Your task to perform on an android device: turn off location Image 0: 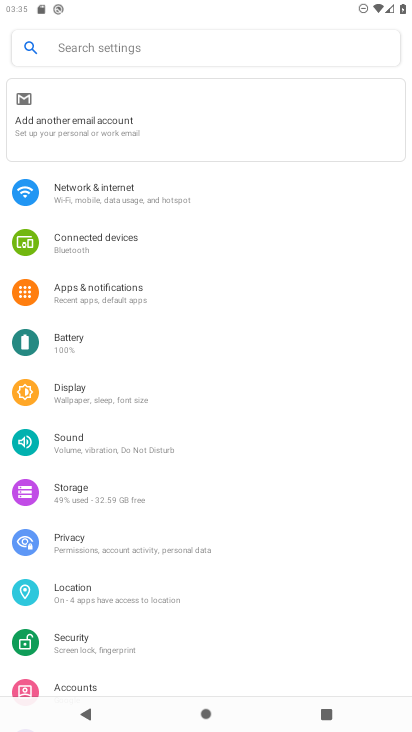
Step 0: click (105, 586)
Your task to perform on an android device: turn off location Image 1: 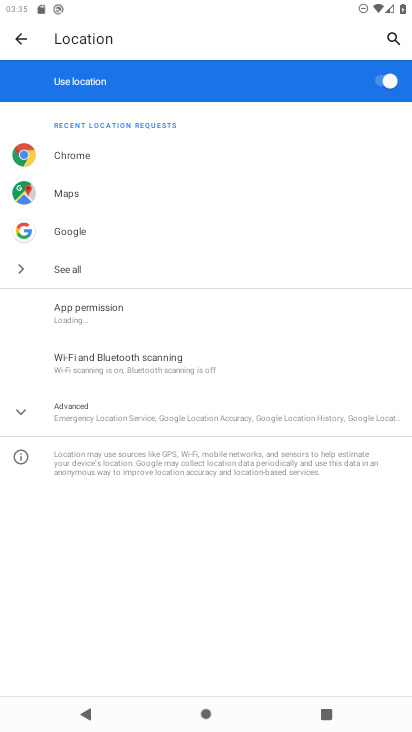
Step 1: click (385, 80)
Your task to perform on an android device: turn off location Image 2: 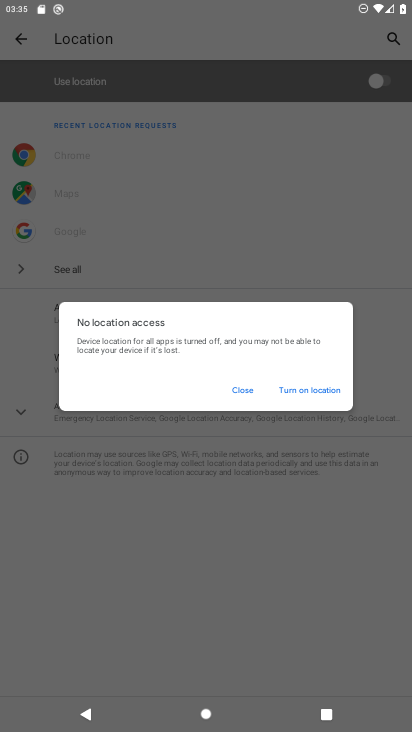
Step 2: click (247, 393)
Your task to perform on an android device: turn off location Image 3: 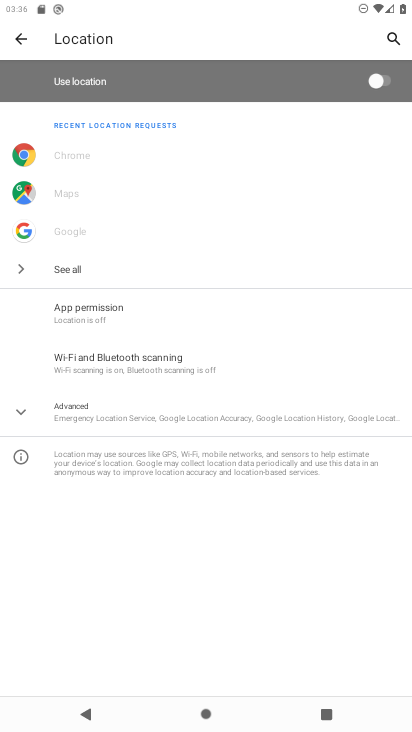
Step 3: task complete